Your task to perform on an android device: Go to internet settings Image 0: 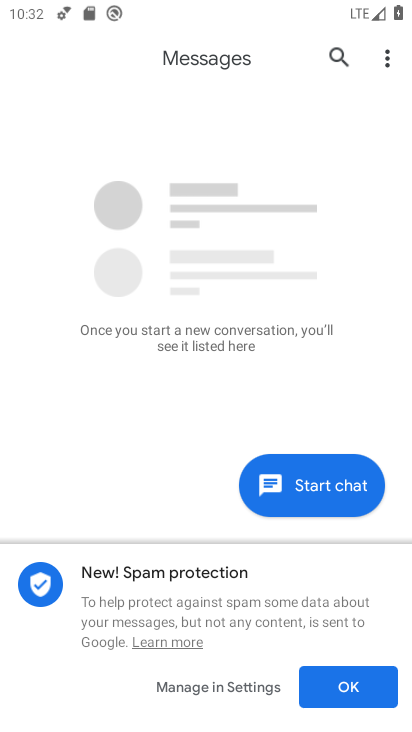
Step 0: press home button
Your task to perform on an android device: Go to internet settings Image 1: 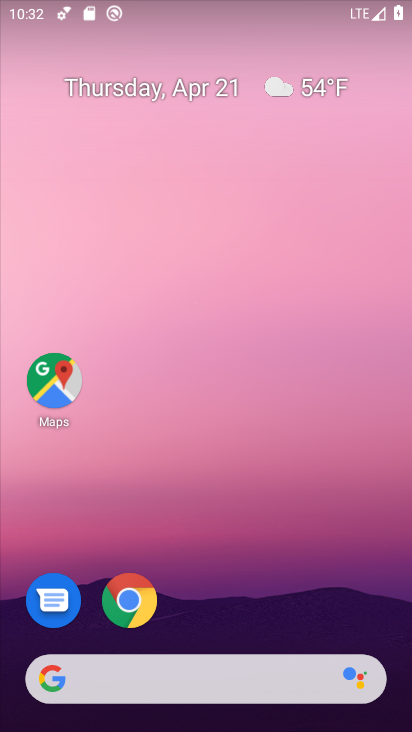
Step 1: drag from (239, 432) to (177, 40)
Your task to perform on an android device: Go to internet settings Image 2: 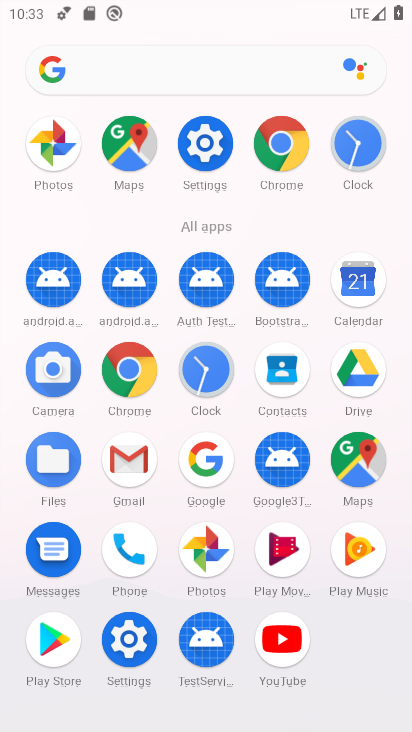
Step 2: click (133, 649)
Your task to perform on an android device: Go to internet settings Image 3: 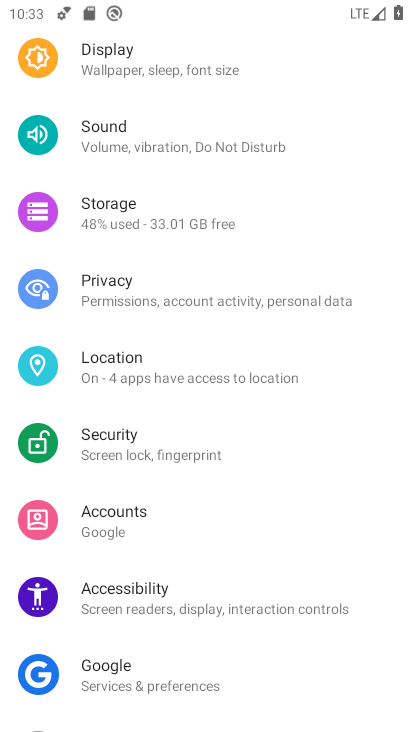
Step 3: drag from (223, 110) to (212, 656)
Your task to perform on an android device: Go to internet settings Image 4: 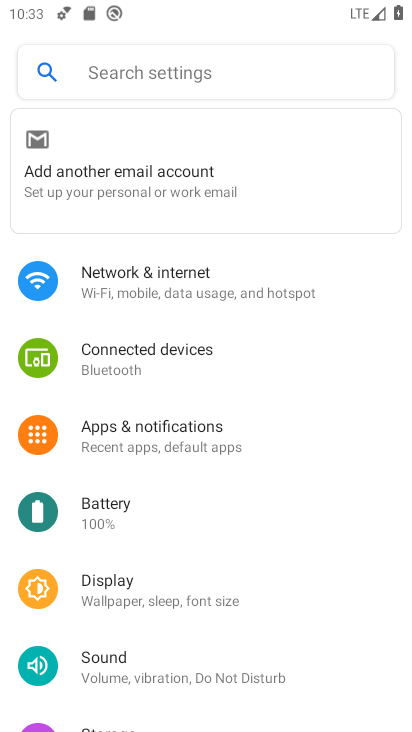
Step 4: click (204, 268)
Your task to perform on an android device: Go to internet settings Image 5: 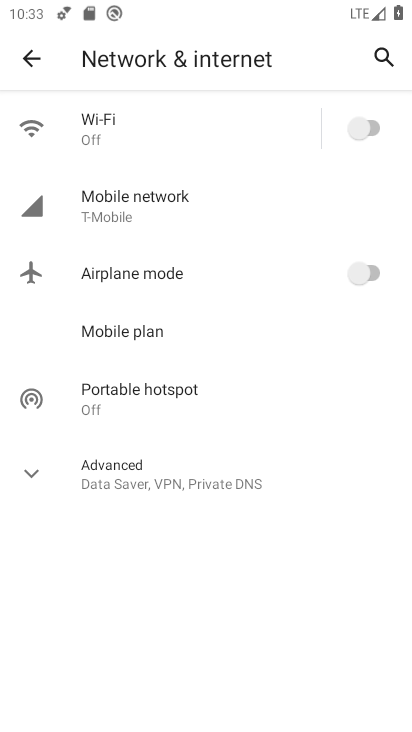
Step 5: task complete